Your task to perform on an android device: find which apps use the phone's location Image 0: 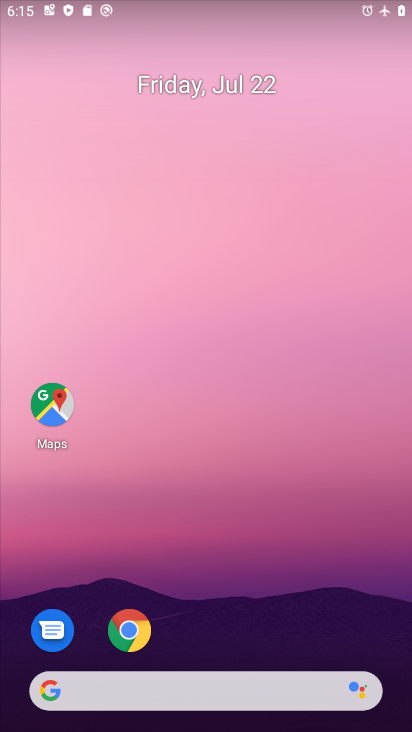
Step 0: drag from (300, 706) to (281, 168)
Your task to perform on an android device: find which apps use the phone's location Image 1: 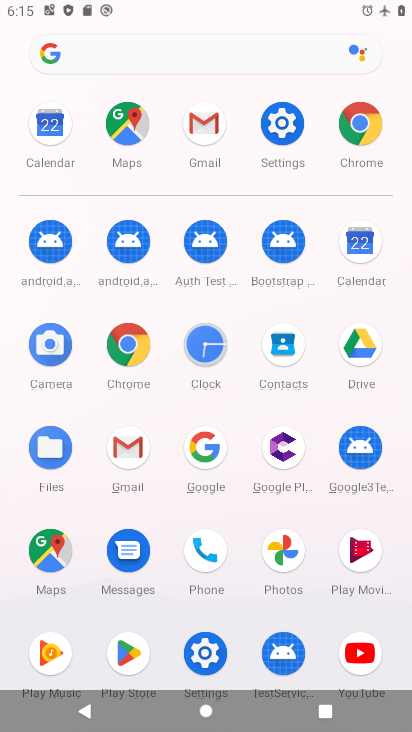
Step 1: click (276, 137)
Your task to perform on an android device: find which apps use the phone's location Image 2: 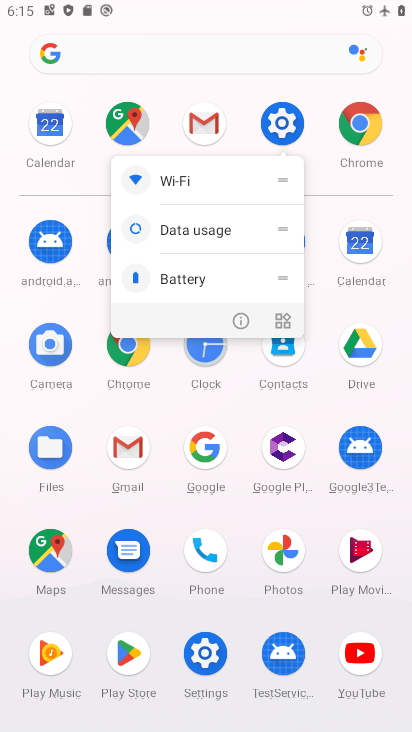
Step 2: click (266, 121)
Your task to perform on an android device: find which apps use the phone's location Image 3: 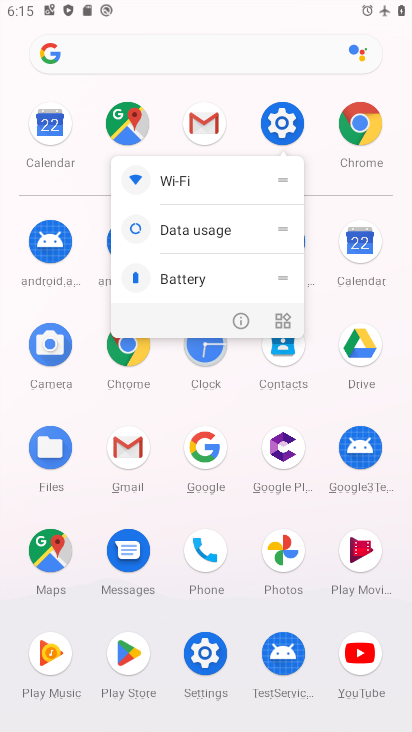
Step 3: click (280, 117)
Your task to perform on an android device: find which apps use the phone's location Image 4: 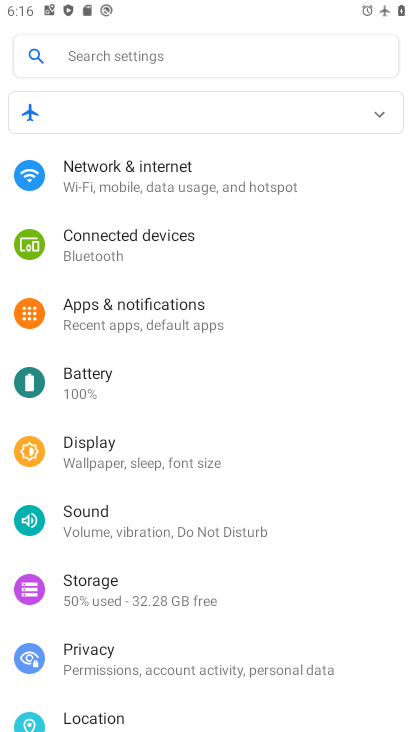
Step 4: click (136, 721)
Your task to perform on an android device: find which apps use the phone's location Image 5: 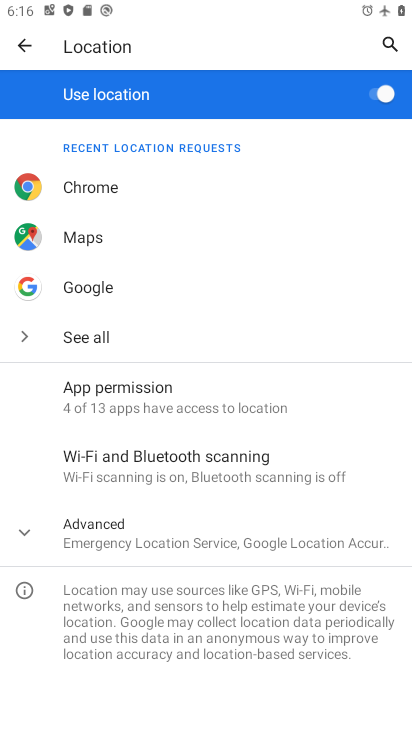
Step 5: click (167, 380)
Your task to perform on an android device: find which apps use the phone's location Image 6: 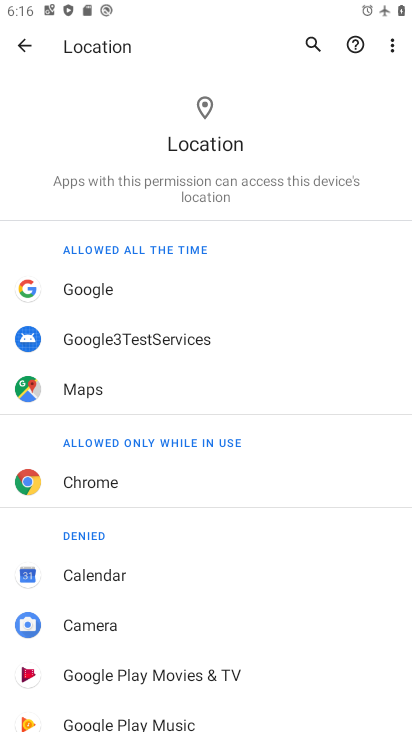
Step 6: task complete